Your task to perform on an android device: change the clock display to show seconds Image 0: 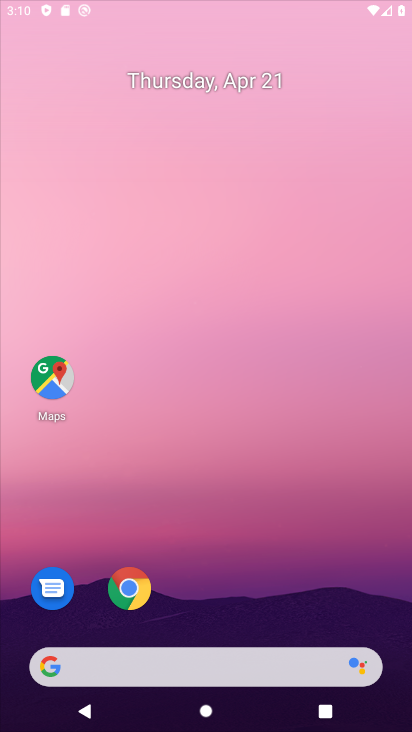
Step 0: click (268, 114)
Your task to perform on an android device: change the clock display to show seconds Image 1: 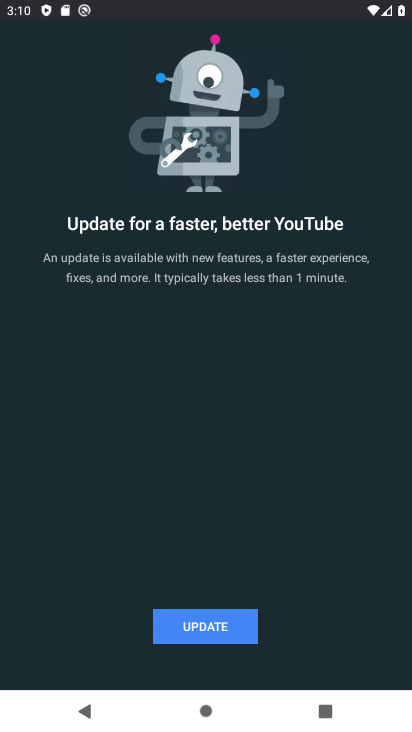
Step 1: press home button
Your task to perform on an android device: change the clock display to show seconds Image 2: 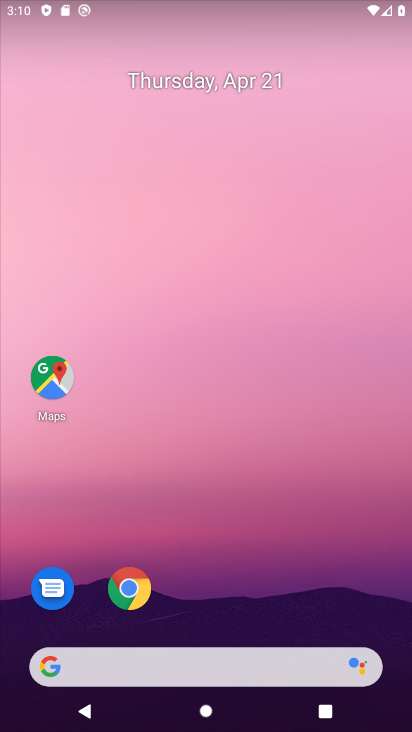
Step 2: drag from (154, 672) to (213, 25)
Your task to perform on an android device: change the clock display to show seconds Image 3: 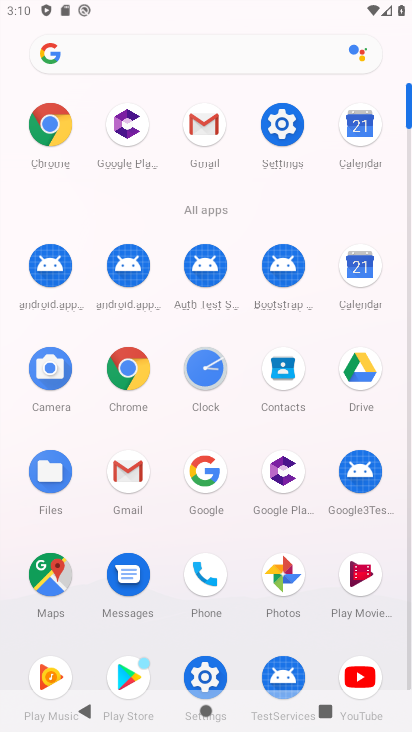
Step 3: click (205, 380)
Your task to perform on an android device: change the clock display to show seconds Image 4: 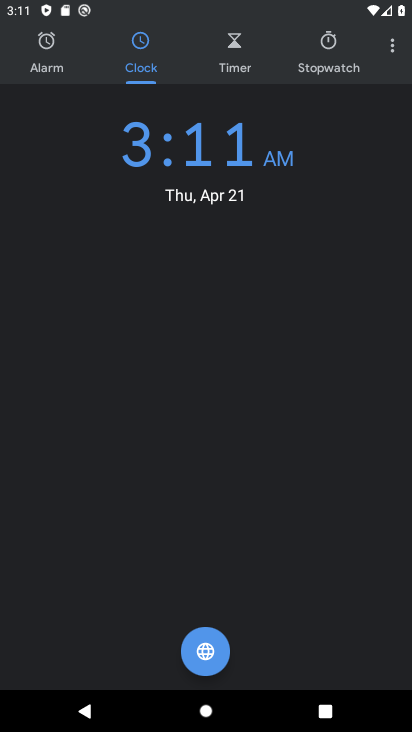
Step 4: click (394, 48)
Your task to perform on an android device: change the clock display to show seconds Image 5: 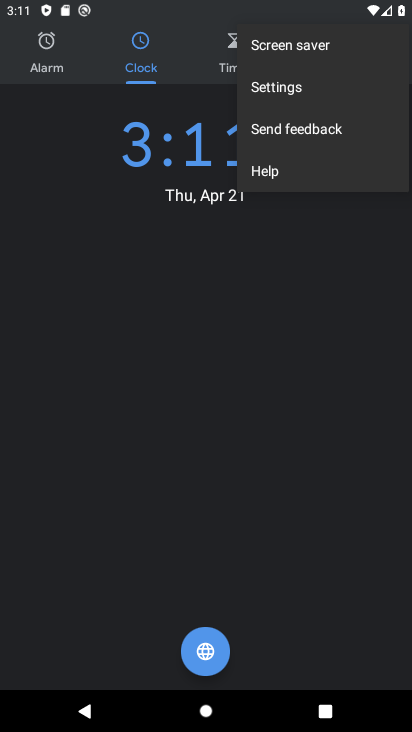
Step 5: click (317, 82)
Your task to perform on an android device: change the clock display to show seconds Image 6: 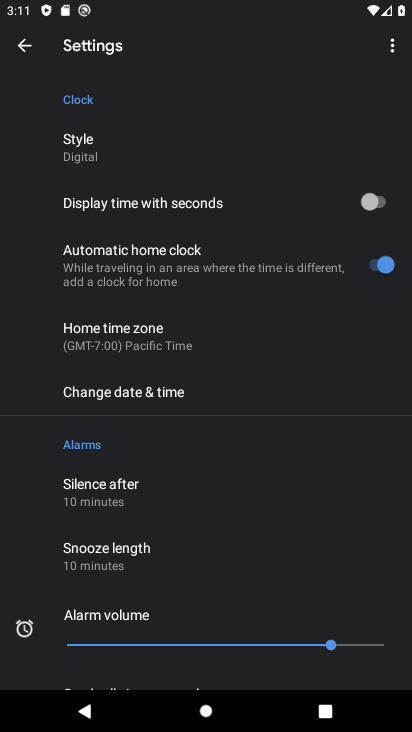
Step 6: click (379, 198)
Your task to perform on an android device: change the clock display to show seconds Image 7: 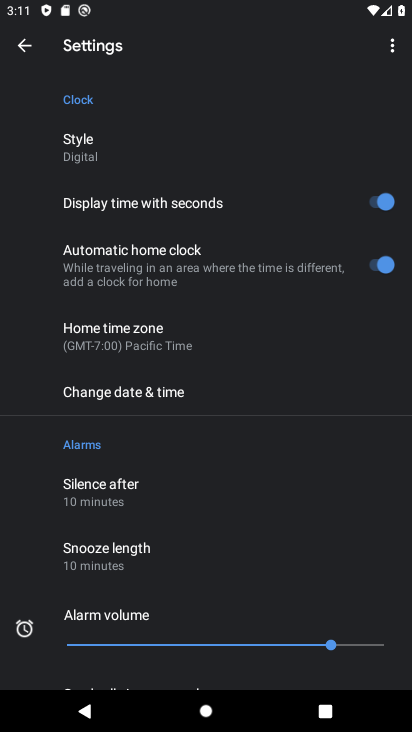
Step 7: task complete